Your task to perform on an android device: Find coffee shops on Maps Image 0: 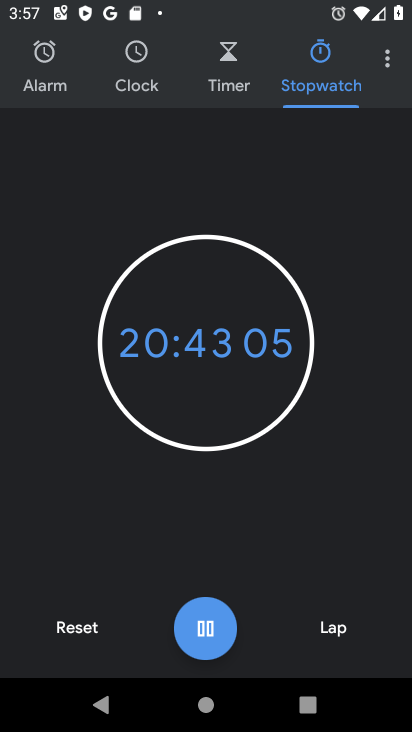
Step 0: press home button
Your task to perform on an android device: Find coffee shops on Maps Image 1: 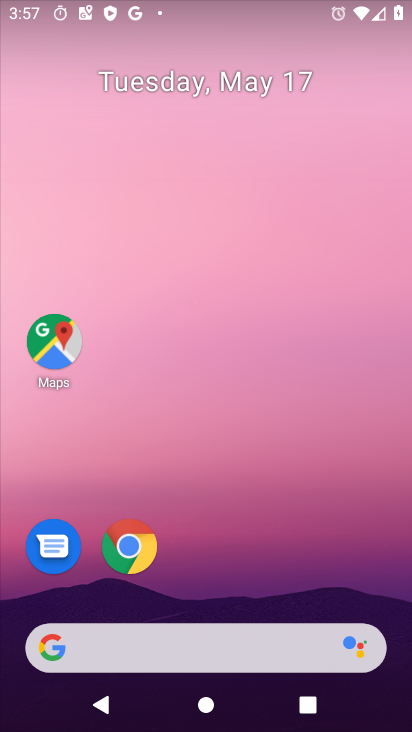
Step 1: click (64, 334)
Your task to perform on an android device: Find coffee shops on Maps Image 2: 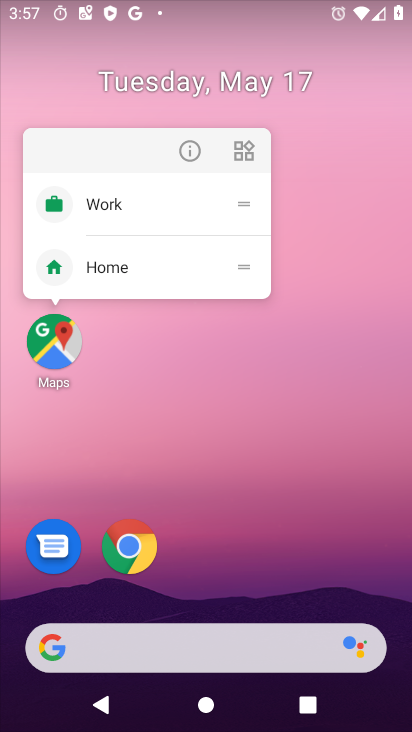
Step 2: click (37, 340)
Your task to perform on an android device: Find coffee shops on Maps Image 3: 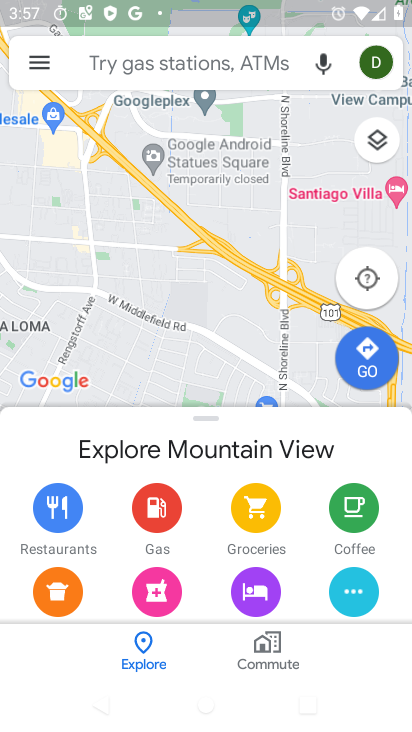
Step 3: click (103, 61)
Your task to perform on an android device: Find coffee shops on Maps Image 4: 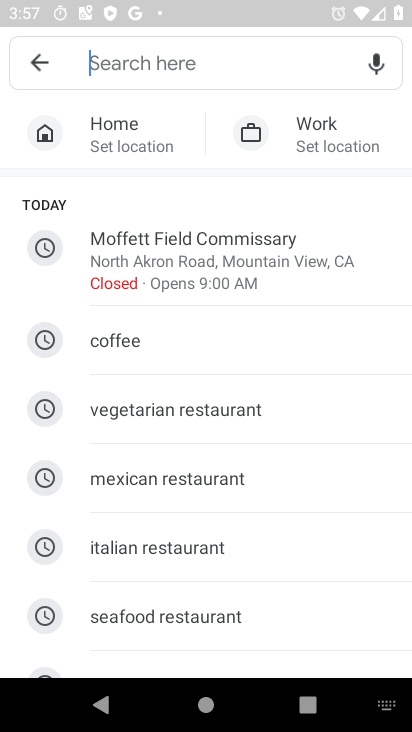
Step 4: type " coffee shops"
Your task to perform on an android device: Find coffee shops on Maps Image 5: 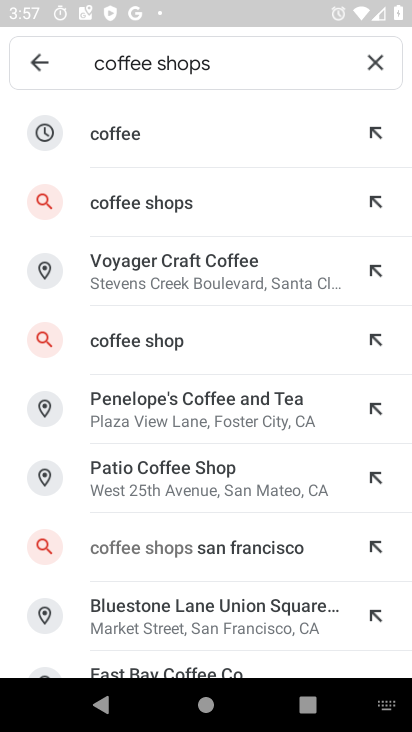
Step 5: click (177, 199)
Your task to perform on an android device: Find coffee shops on Maps Image 6: 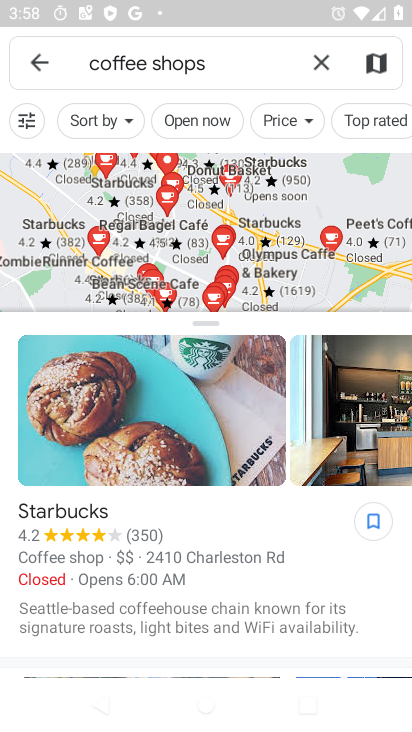
Step 6: task complete